Your task to perform on an android device: Open Android settings Image 0: 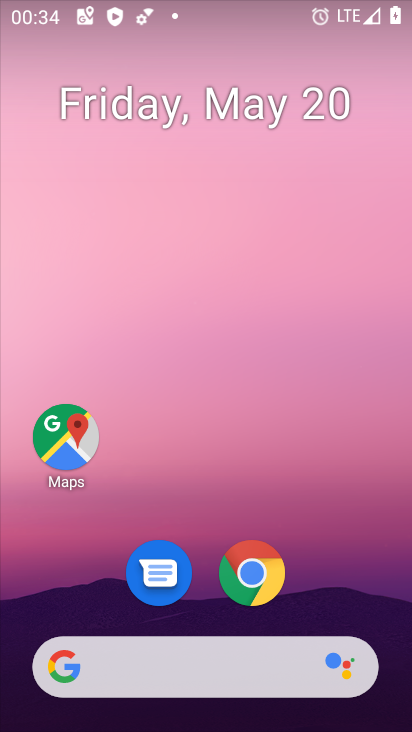
Step 0: drag from (201, 581) to (215, 152)
Your task to perform on an android device: Open Android settings Image 1: 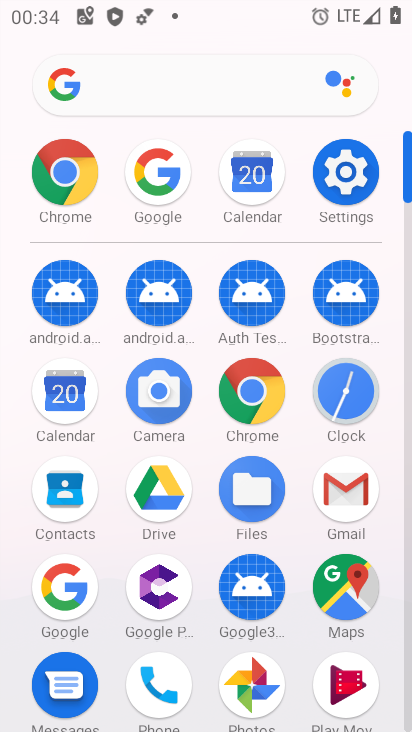
Step 1: click (314, 167)
Your task to perform on an android device: Open Android settings Image 2: 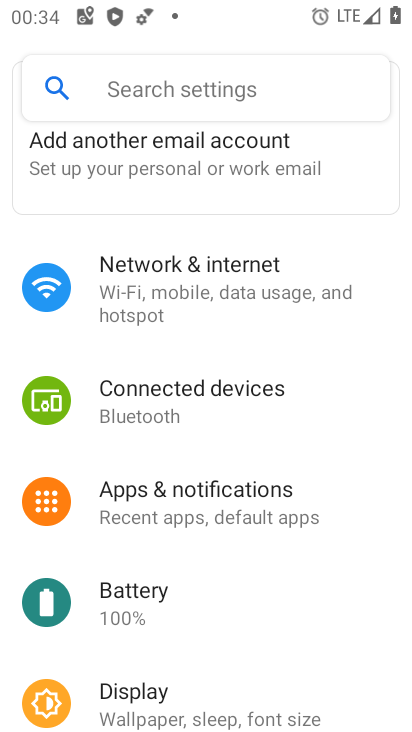
Step 2: task complete